Your task to perform on an android device: Search for seafood restaurants on Google Maps Image 0: 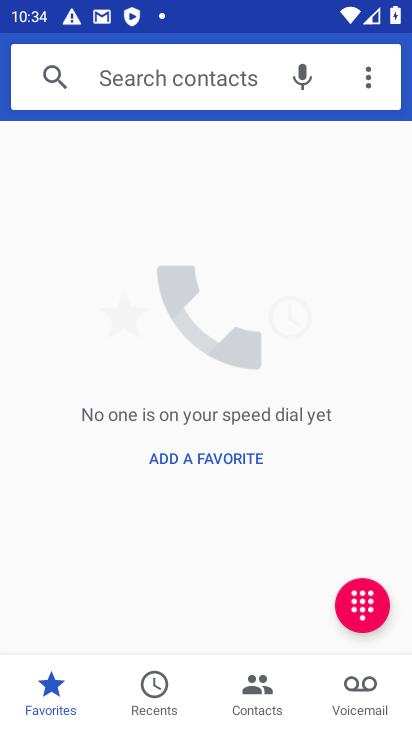
Step 0: press home button
Your task to perform on an android device: Search for seafood restaurants on Google Maps Image 1: 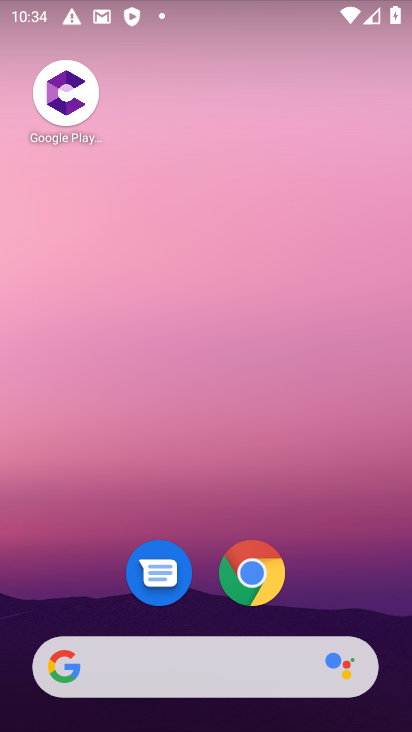
Step 1: drag from (306, 607) to (298, 7)
Your task to perform on an android device: Search for seafood restaurants on Google Maps Image 2: 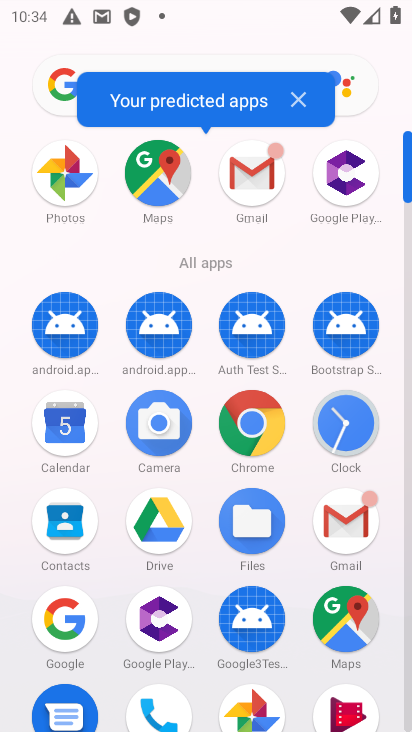
Step 2: click (156, 164)
Your task to perform on an android device: Search for seafood restaurants on Google Maps Image 3: 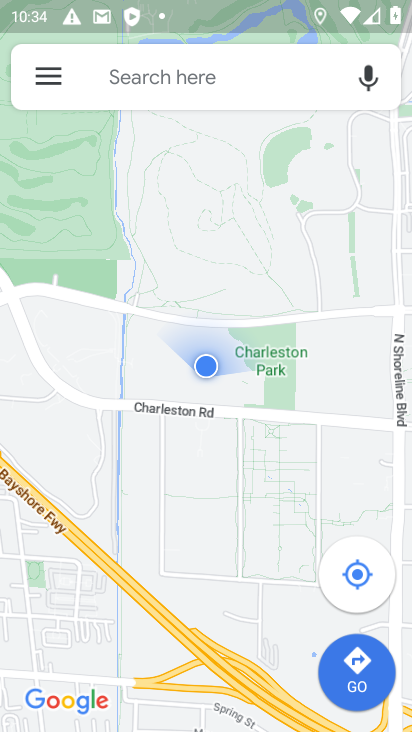
Step 3: click (141, 77)
Your task to perform on an android device: Search for seafood restaurants on Google Maps Image 4: 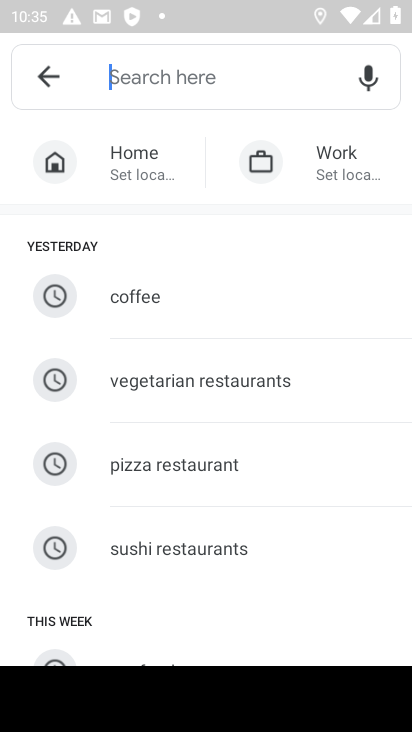
Step 4: drag from (208, 613) to (207, 296)
Your task to perform on an android device: Search for seafood restaurants on Google Maps Image 5: 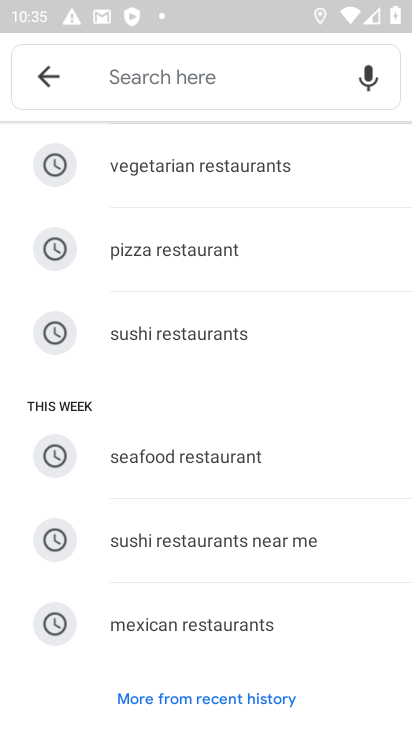
Step 5: click (185, 471)
Your task to perform on an android device: Search for seafood restaurants on Google Maps Image 6: 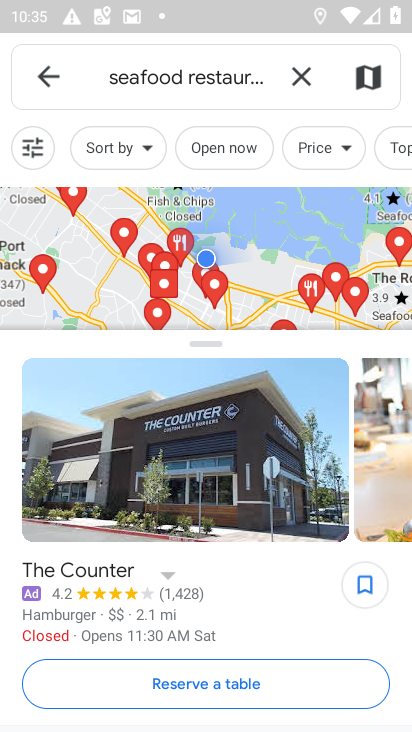
Step 6: task complete